Your task to perform on an android device: Clear the shopping cart on bestbuy. Search for duracell triple a on bestbuy, select the first entry, and add it to the cart. Image 0: 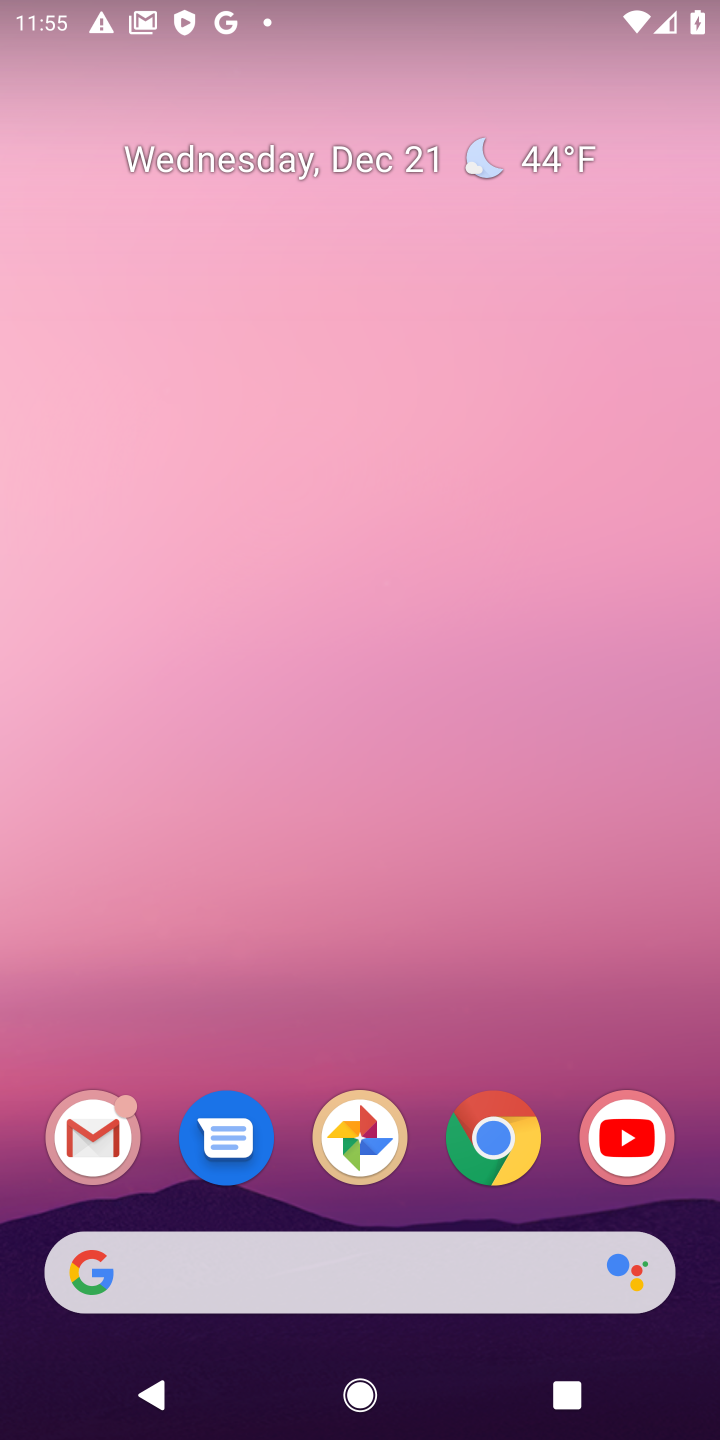
Step 0: click (488, 1141)
Your task to perform on an android device: Clear the shopping cart on bestbuy. Search for duracell triple a on bestbuy, select the first entry, and add it to the cart. Image 1: 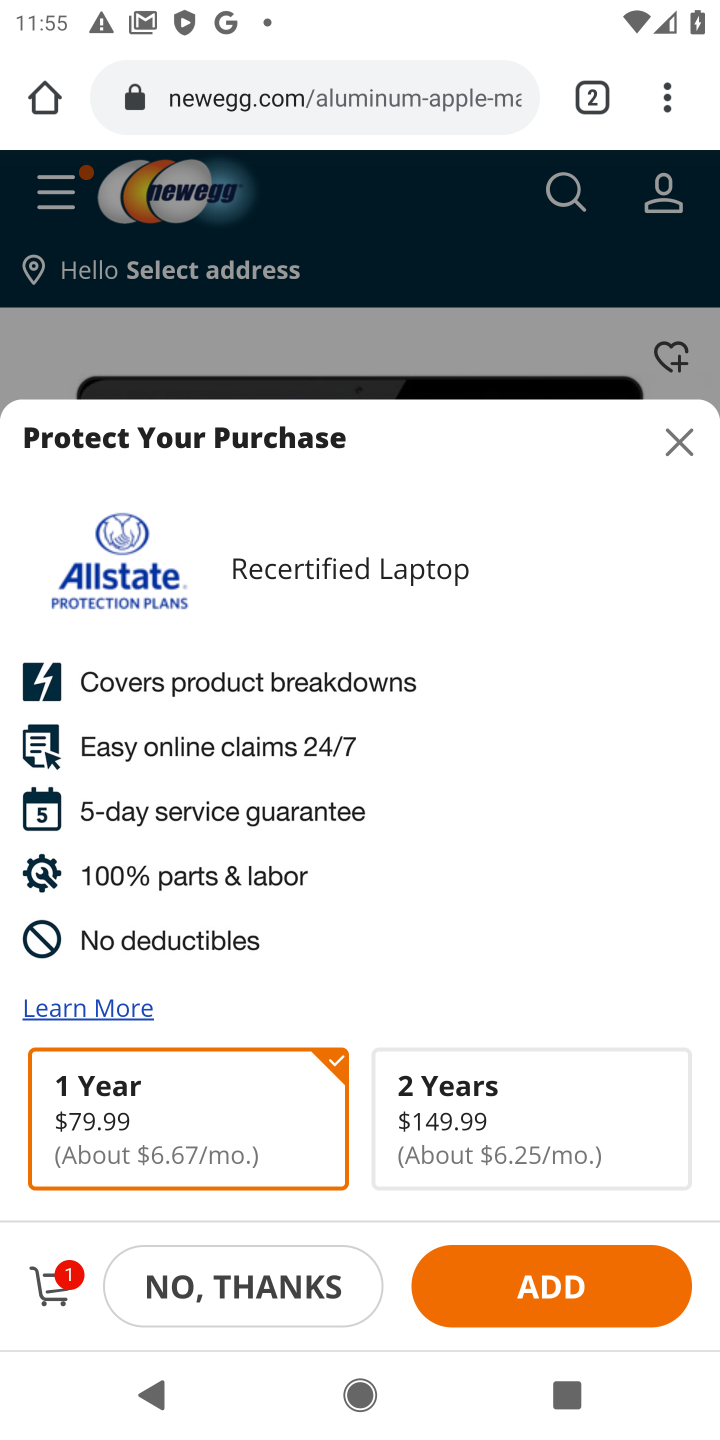
Step 1: click (263, 89)
Your task to perform on an android device: Clear the shopping cart on bestbuy. Search for duracell triple a on bestbuy, select the first entry, and add it to the cart. Image 2: 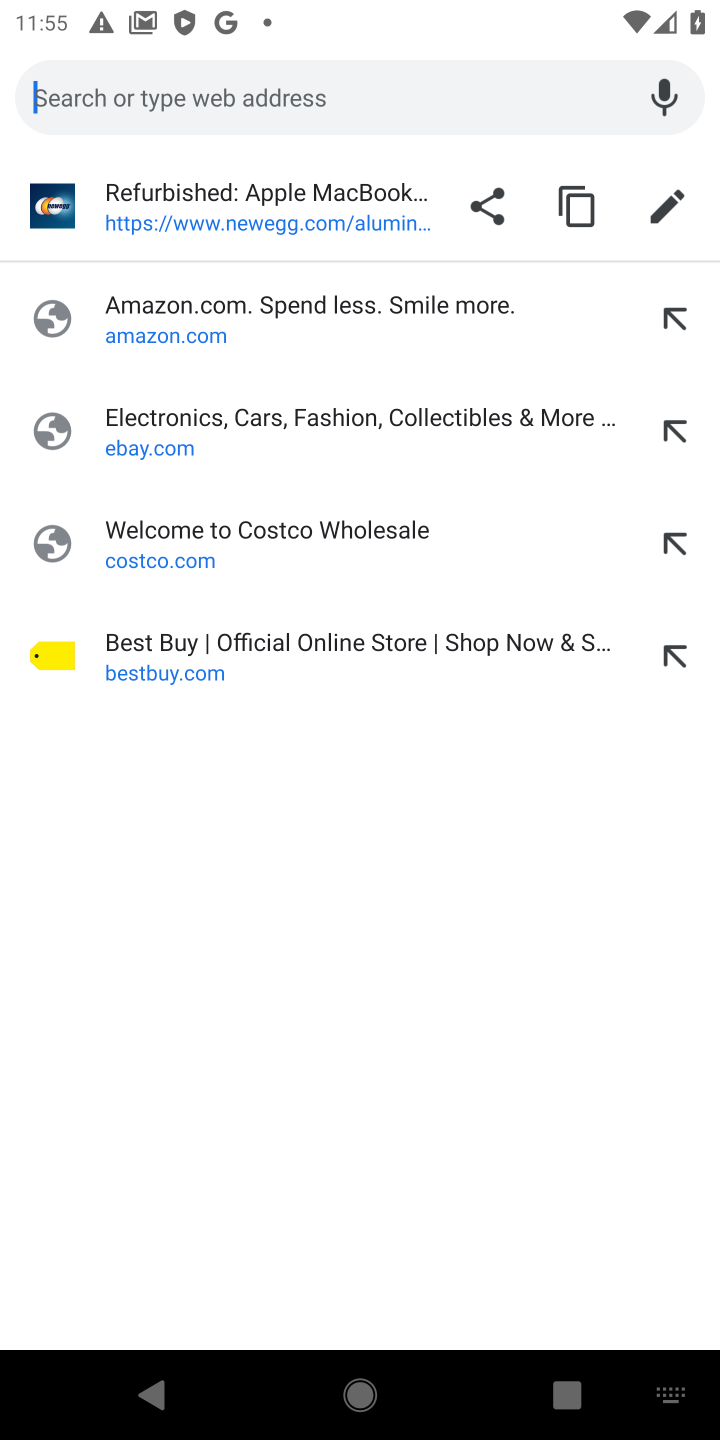
Step 2: click (170, 654)
Your task to perform on an android device: Clear the shopping cart on bestbuy. Search for duracell triple a on bestbuy, select the first entry, and add it to the cart. Image 3: 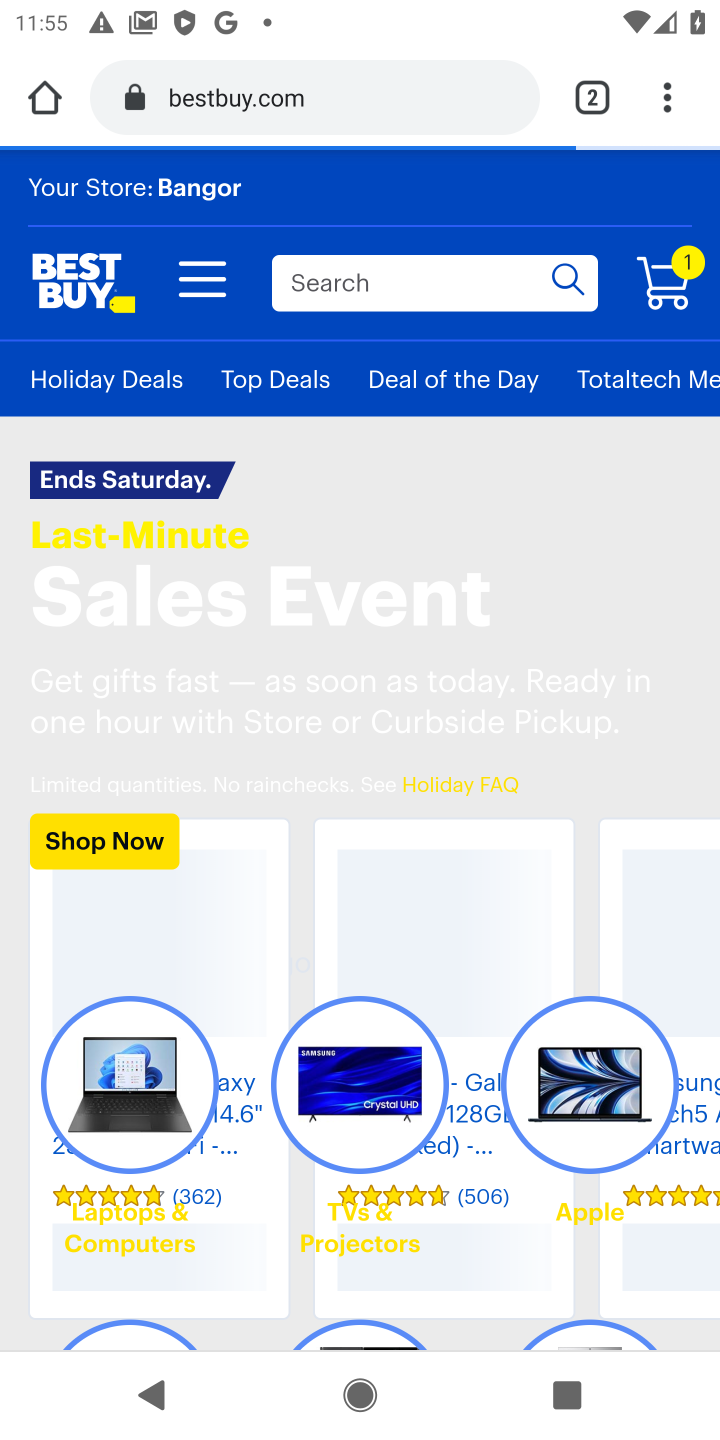
Step 3: click (679, 284)
Your task to perform on an android device: Clear the shopping cart on bestbuy. Search for duracell triple a on bestbuy, select the first entry, and add it to the cart. Image 4: 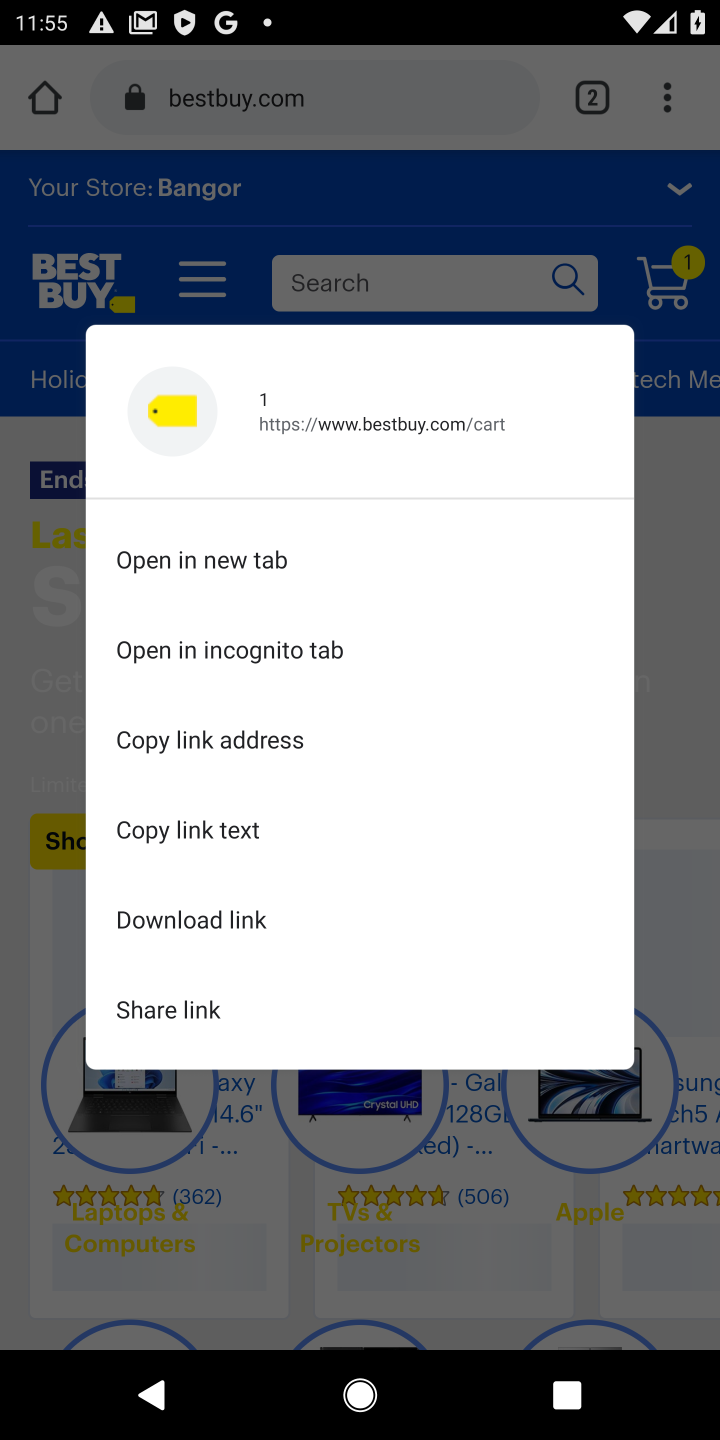
Step 4: click (679, 284)
Your task to perform on an android device: Clear the shopping cart on bestbuy. Search for duracell triple a on bestbuy, select the first entry, and add it to the cart. Image 5: 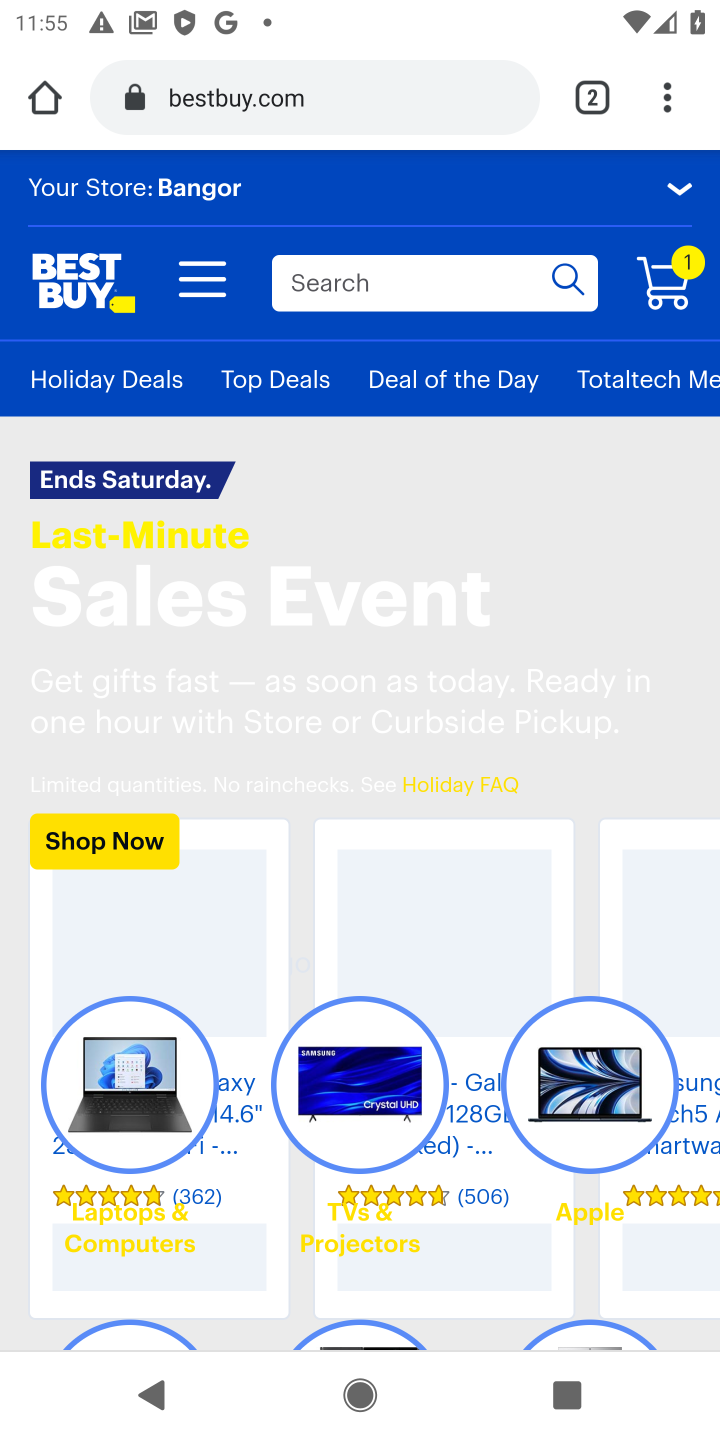
Step 5: click (666, 296)
Your task to perform on an android device: Clear the shopping cart on bestbuy. Search for duracell triple a on bestbuy, select the first entry, and add it to the cart. Image 6: 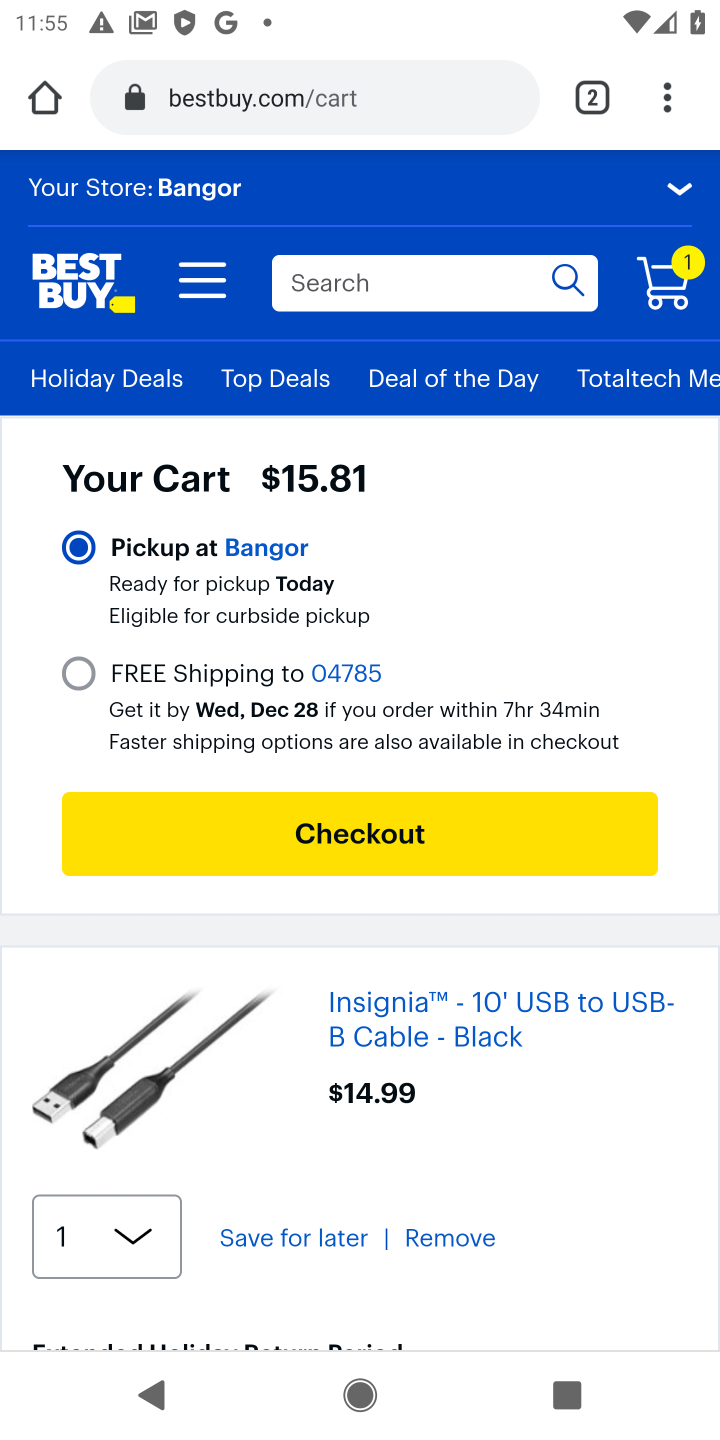
Step 6: drag from (342, 1066) to (350, 727)
Your task to perform on an android device: Clear the shopping cart on bestbuy. Search for duracell triple a on bestbuy, select the first entry, and add it to the cart. Image 7: 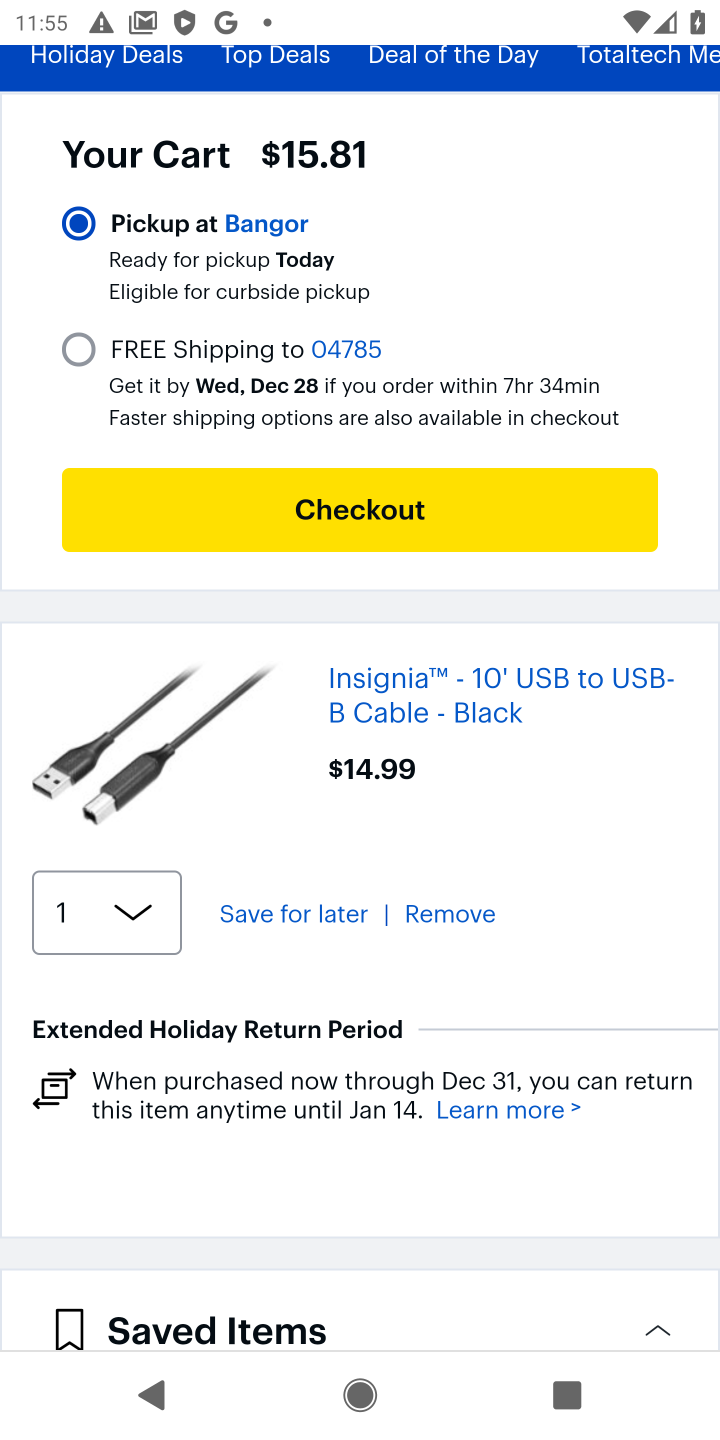
Step 7: click (436, 917)
Your task to perform on an android device: Clear the shopping cart on bestbuy. Search for duracell triple a on bestbuy, select the first entry, and add it to the cart. Image 8: 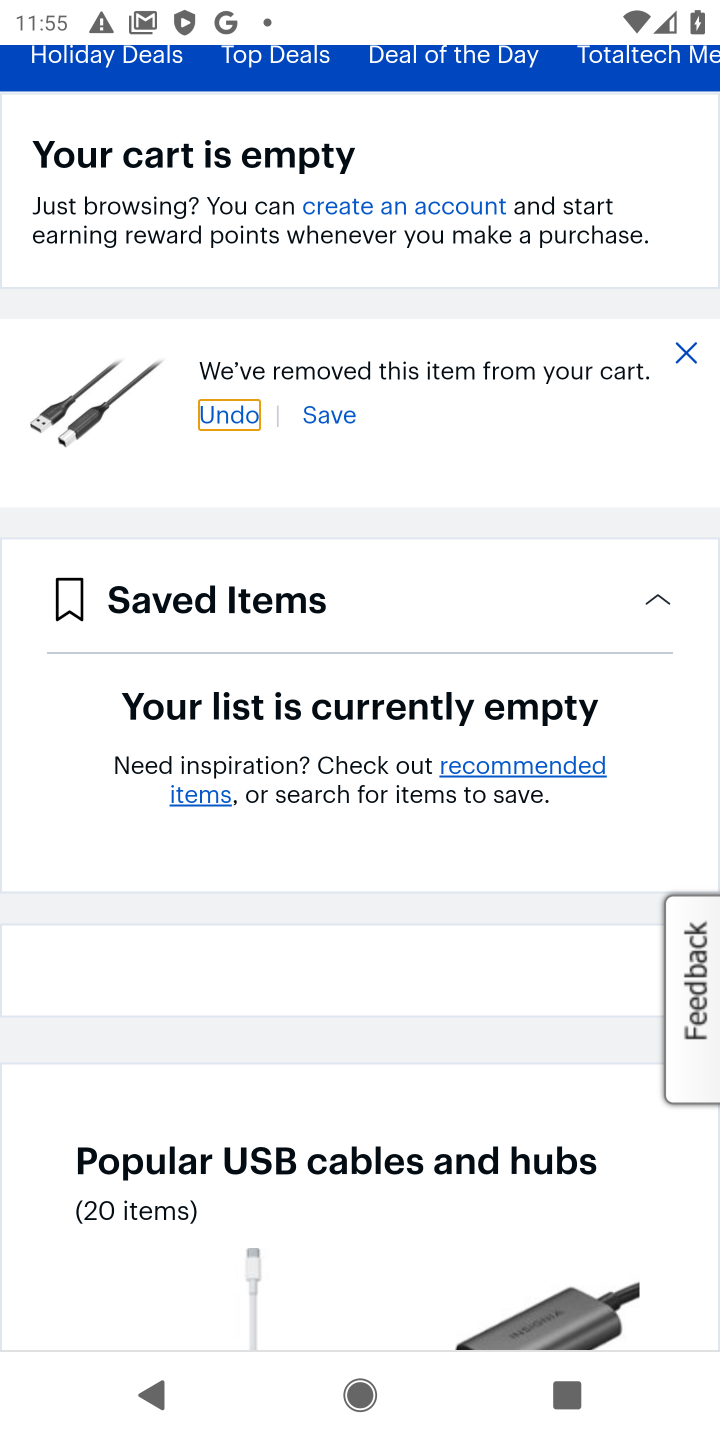
Step 8: drag from (359, 459) to (449, 1028)
Your task to perform on an android device: Clear the shopping cart on bestbuy. Search for duracell triple a on bestbuy, select the first entry, and add it to the cart. Image 9: 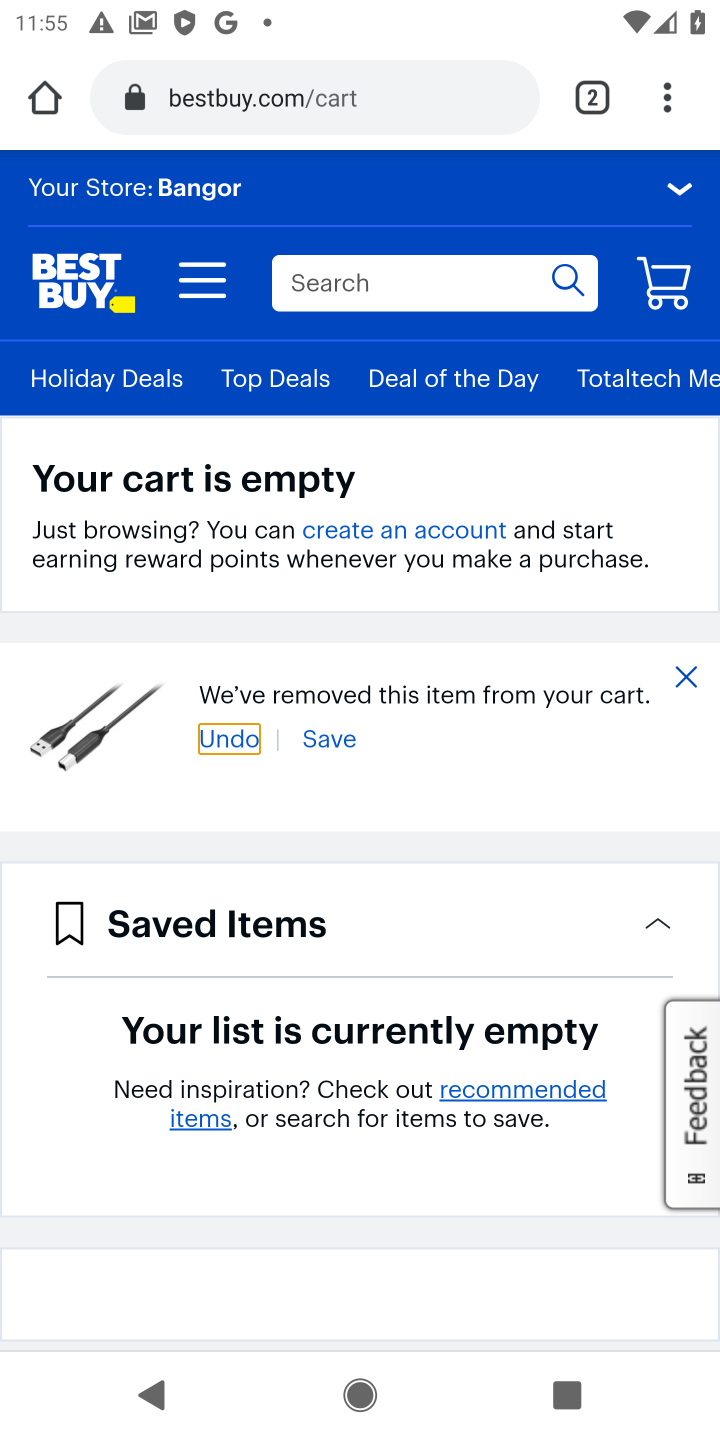
Step 9: click (335, 291)
Your task to perform on an android device: Clear the shopping cart on bestbuy. Search for duracell triple a on bestbuy, select the first entry, and add it to the cart. Image 10: 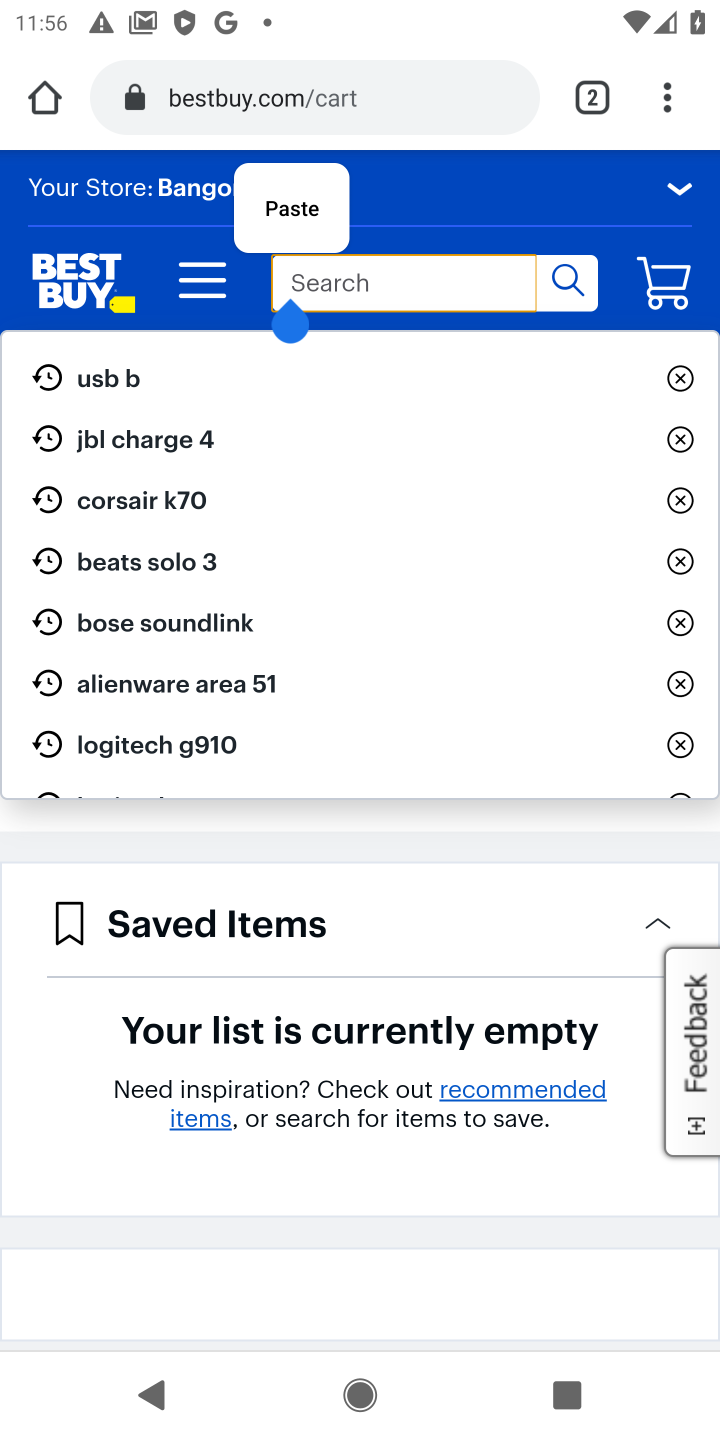
Step 10: type "duracell triple a"
Your task to perform on an android device: Clear the shopping cart on bestbuy. Search for duracell triple a on bestbuy, select the first entry, and add it to the cart. Image 11: 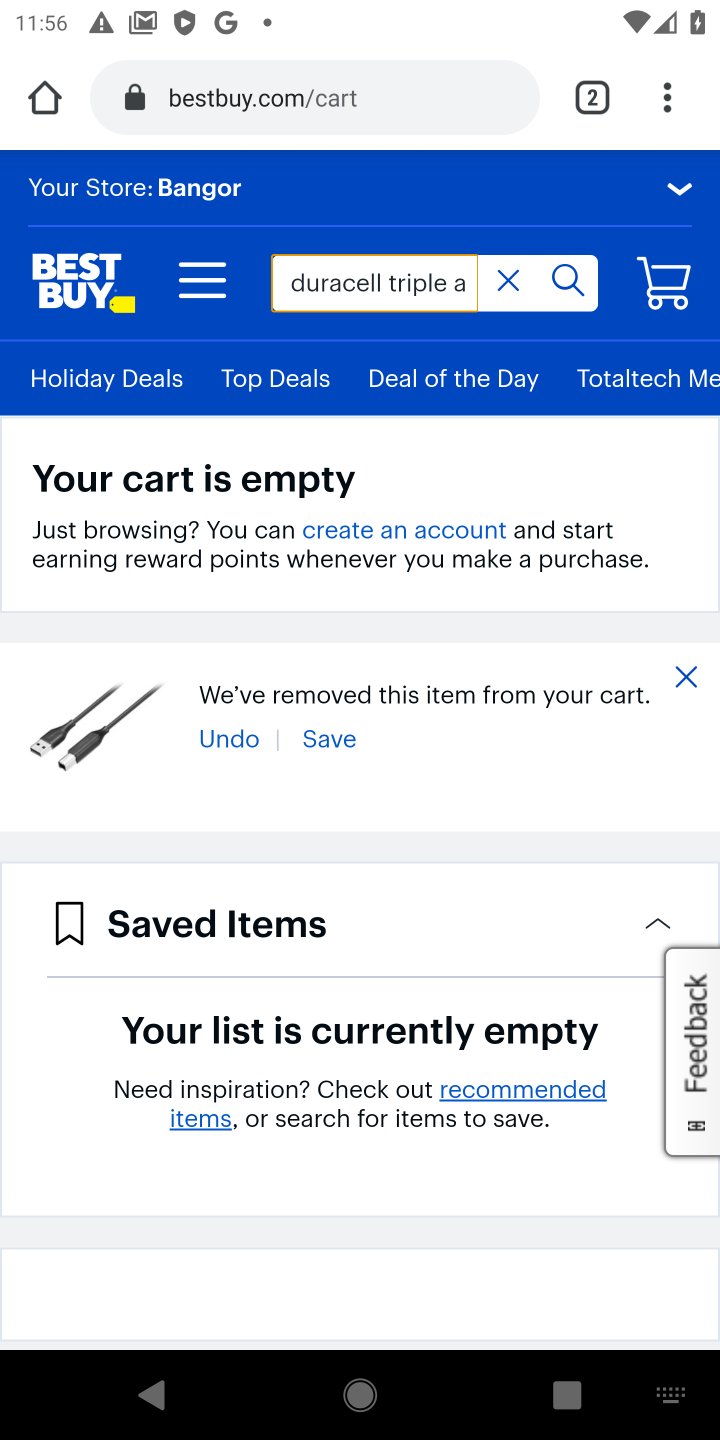
Step 11: click (569, 283)
Your task to perform on an android device: Clear the shopping cart on bestbuy. Search for duracell triple a on bestbuy, select the first entry, and add it to the cart. Image 12: 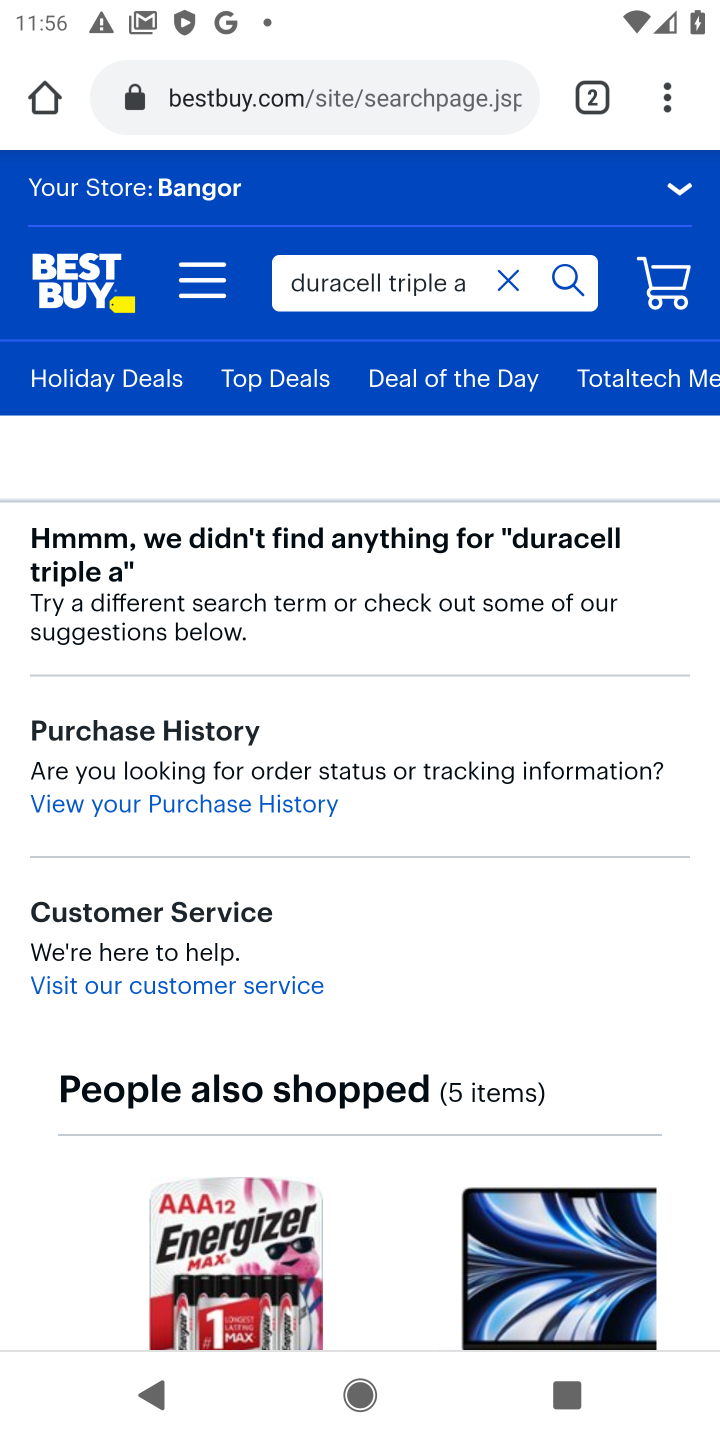
Step 12: task complete